Your task to perform on an android device: make emails show in primary in the gmail app Image 0: 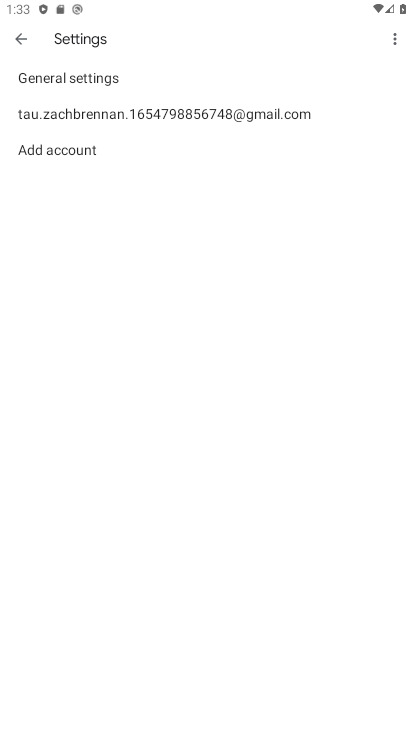
Step 0: press home button
Your task to perform on an android device: make emails show in primary in the gmail app Image 1: 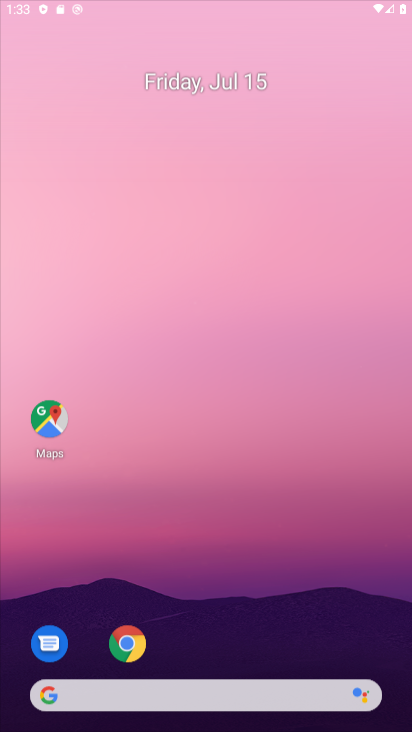
Step 1: drag from (380, 684) to (261, 53)
Your task to perform on an android device: make emails show in primary in the gmail app Image 2: 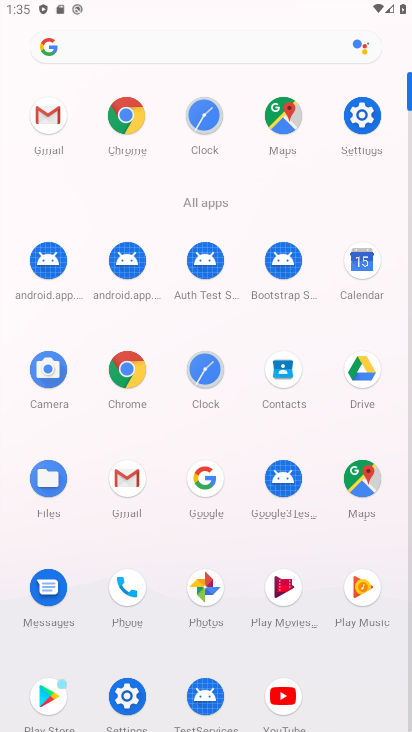
Step 2: click (116, 489)
Your task to perform on an android device: make emails show in primary in the gmail app Image 3: 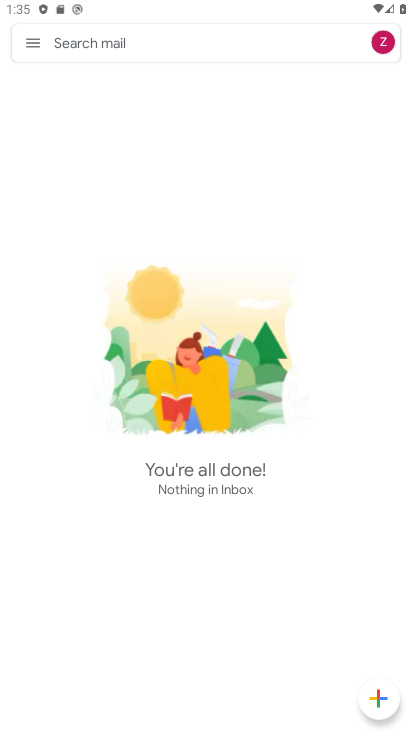
Step 3: click (116, 485)
Your task to perform on an android device: make emails show in primary in the gmail app Image 4: 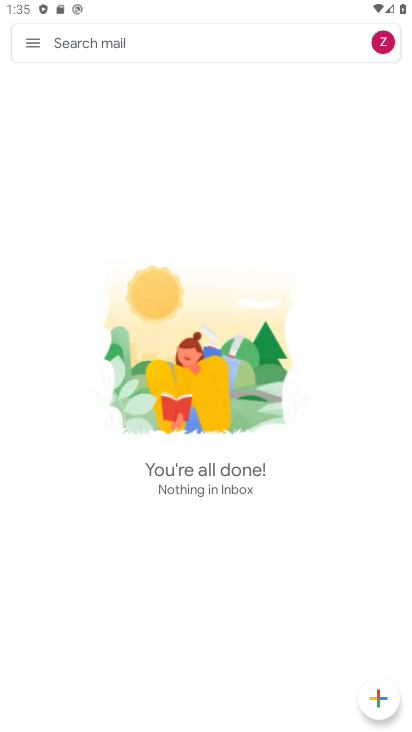
Step 4: task complete